Your task to perform on an android device: create a new album in the google photos Image 0: 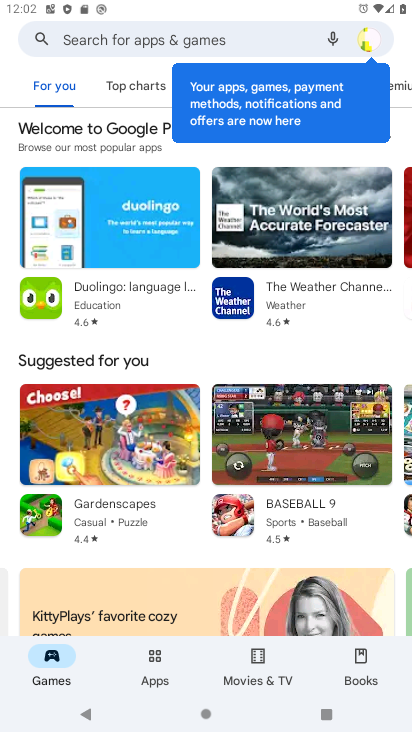
Step 0: press home button
Your task to perform on an android device: create a new album in the google photos Image 1: 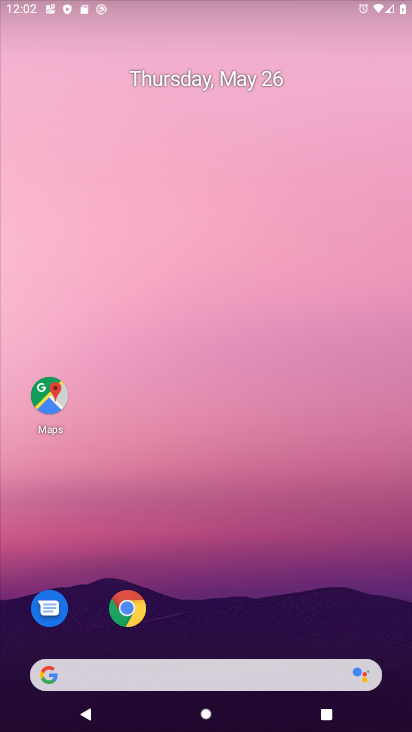
Step 1: drag from (235, 719) to (274, 194)
Your task to perform on an android device: create a new album in the google photos Image 2: 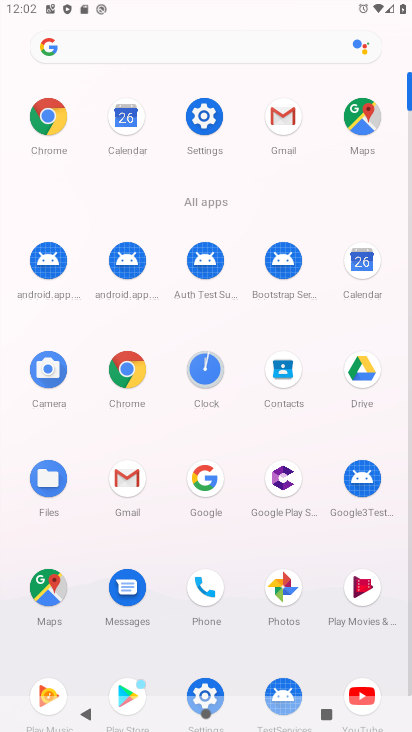
Step 2: click (284, 587)
Your task to perform on an android device: create a new album in the google photos Image 3: 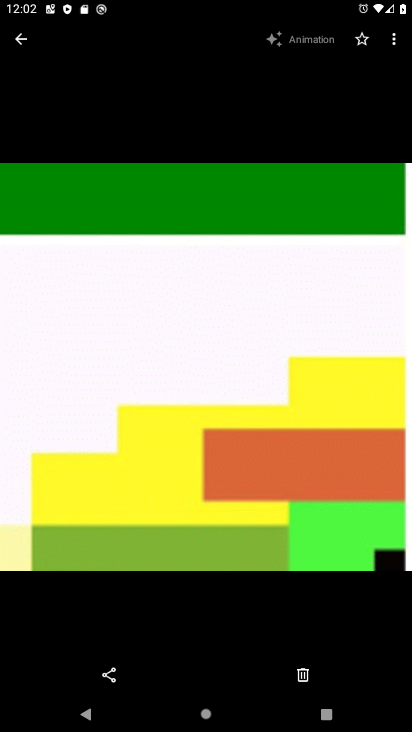
Step 3: click (20, 37)
Your task to perform on an android device: create a new album in the google photos Image 4: 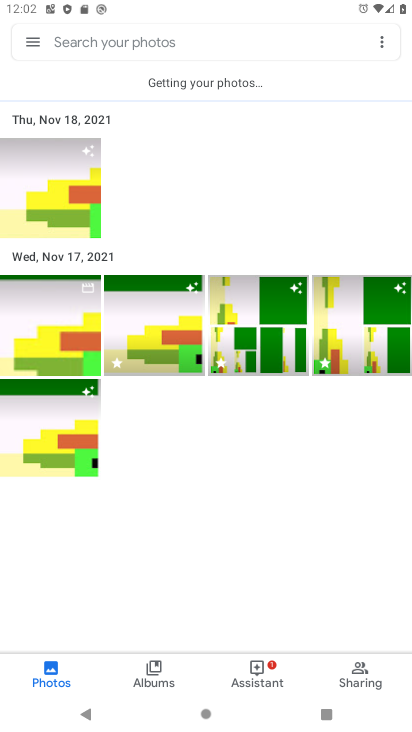
Step 4: click (384, 46)
Your task to perform on an android device: create a new album in the google photos Image 5: 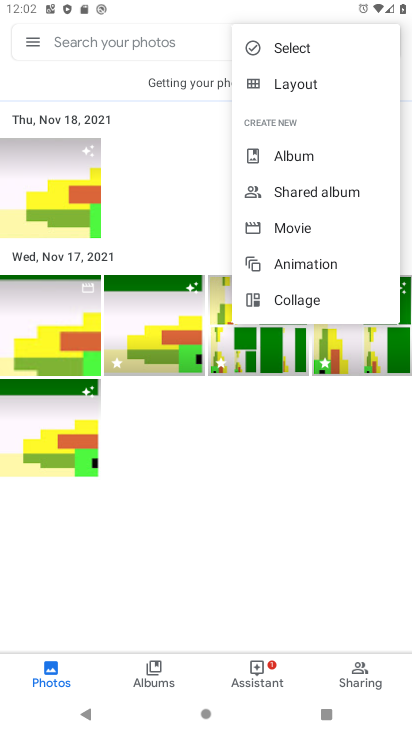
Step 5: click (282, 150)
Your task to perform on an android device: create a new album in the google photos Image 6: 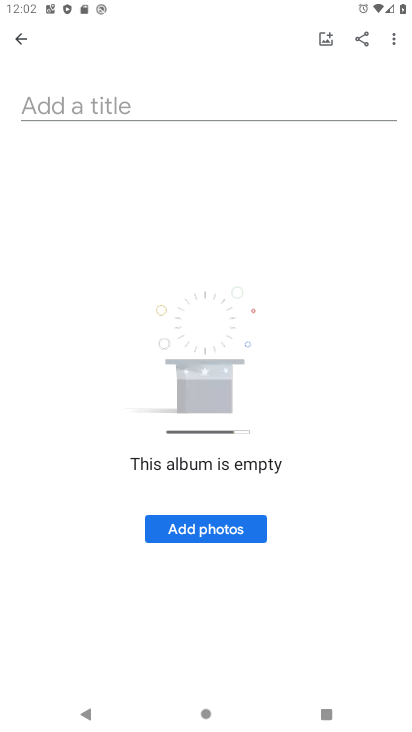
Step 6: click (133, 108)
Your task to perform on an android device: create a new album in the google photos Image 7: 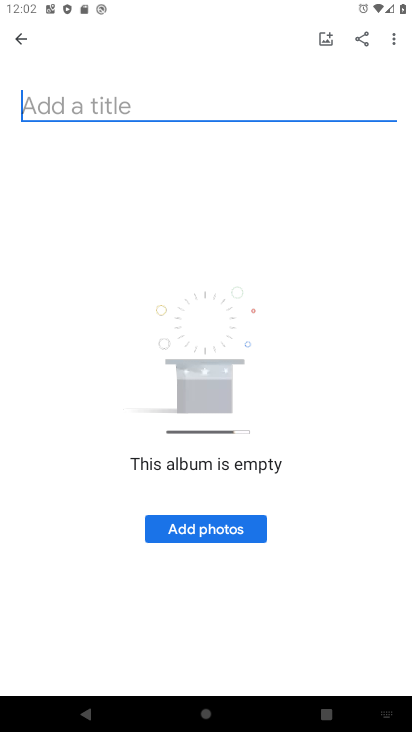
Step 7: type "yamlok"
Your task to perform on an android device: create a new album in the google photos Image 8: 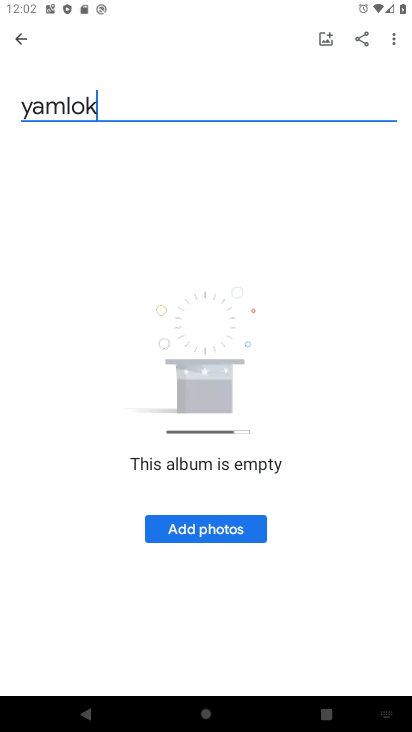
Step 8: click (198, 525)
Your task to perform on an android device: create a new album in the google photos Image 9: 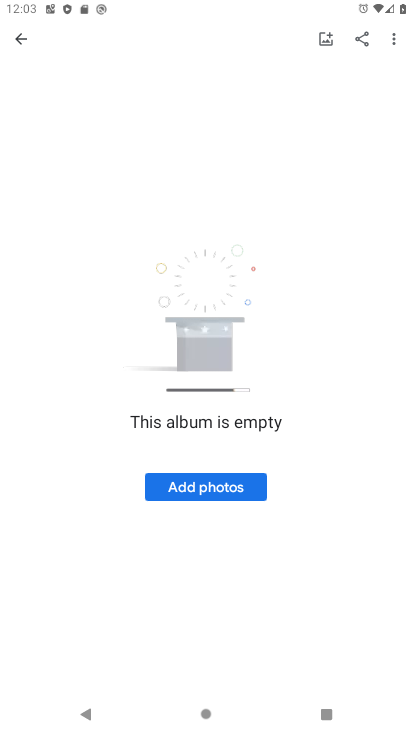
Step 9: click (211, 490)
Your task to perform on an android device: create a new album in the google photos Image 10: 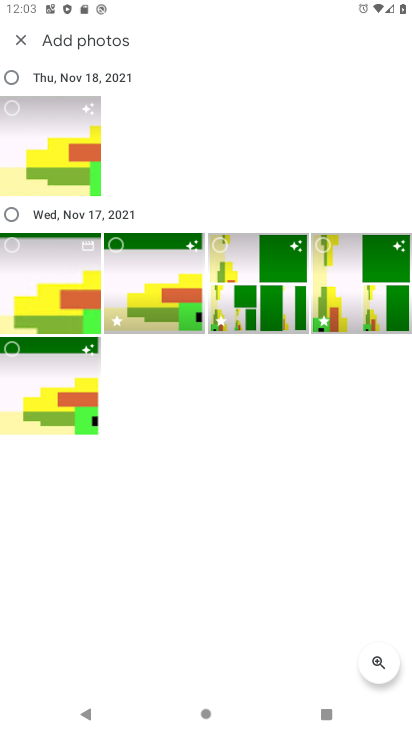
Step 10: click (9, 244)
Your task to perform on an android device: create a new album in the google photos Image 11: 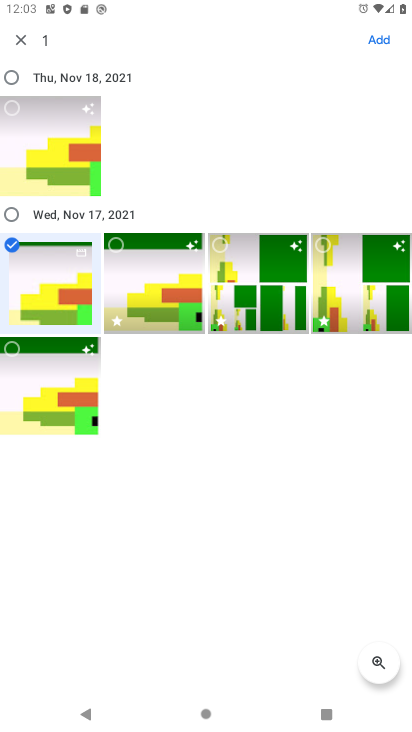
Step 11: click (119, 244)
Your task to perform on an android device: create a new album in the google photos Image 12: 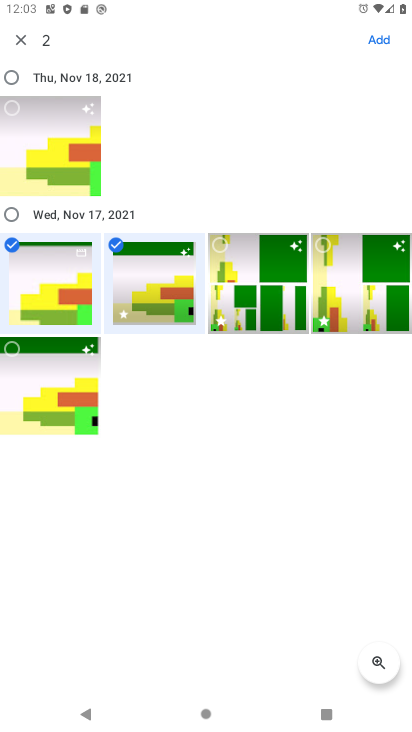
Step 12: click (382, 37)
Your task to perform on an android device: create a new album in the google photos Image 13: 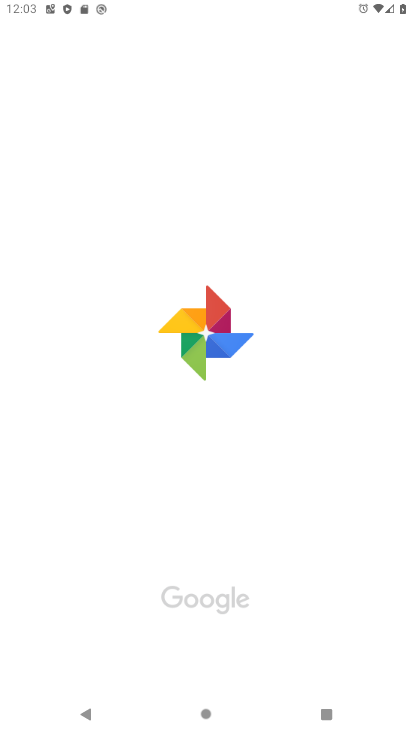
Step 13: task complete